Your task to perform on an android device: Go to CNN.com Image 0: 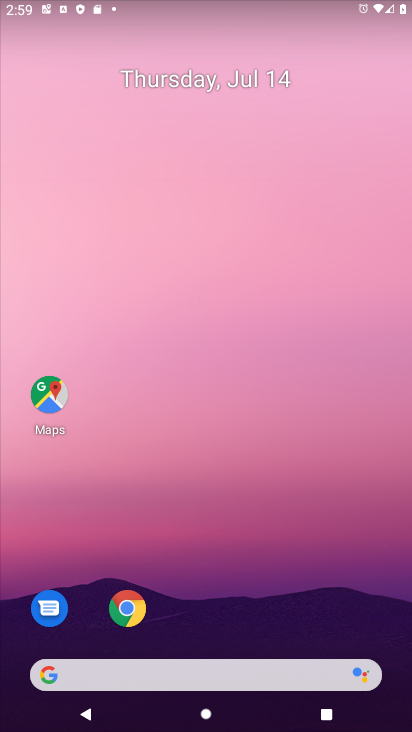
Step 0: click (128, 611)
Your task to perform on an android device: Go to CNN.com Image 1: 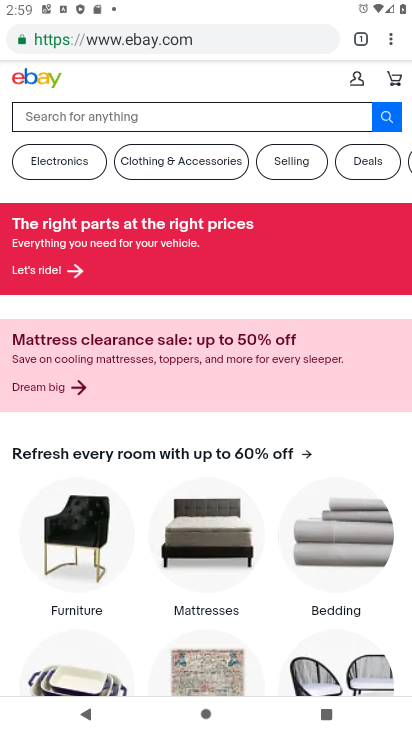
Step 1: click (223, 41)
Your task to perform on an android device: Go to CNN.com Image 2: 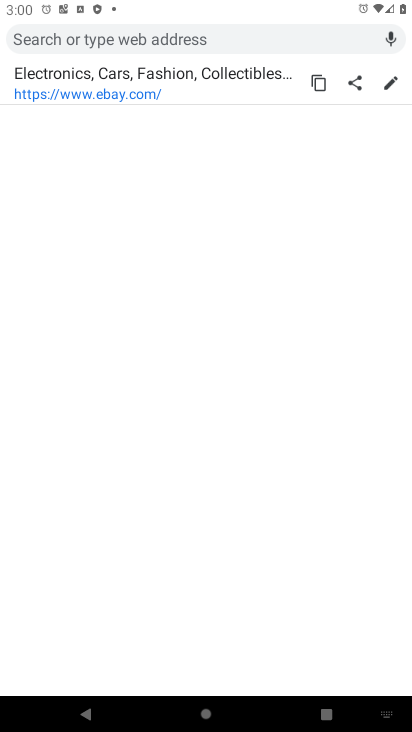
Step 2: type "CNN.com"
Your task to perform on an android device: Go to CNN.com Image 3: 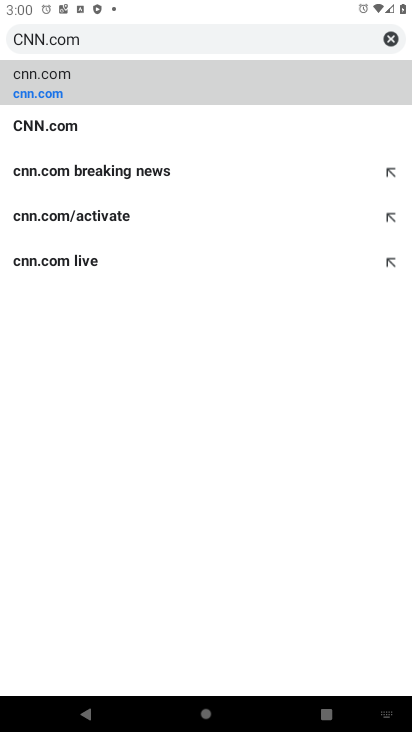
Step 3: click (44, 79)
Your task to perform on an android device: Go to CNN.com Image 4: 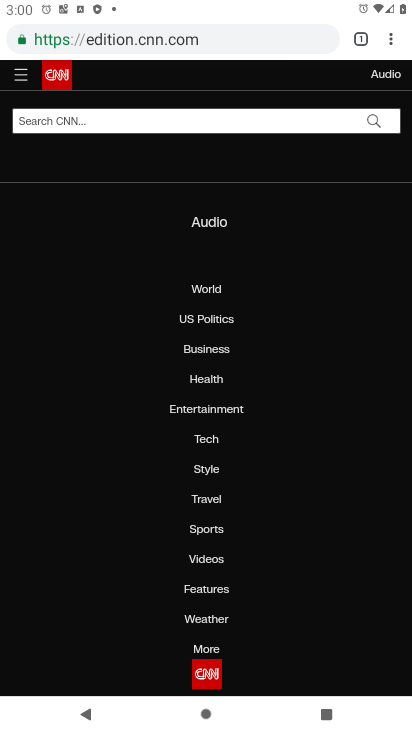
Step 4: task complete